Your task to perform on an android device: turn on data saver in the chrome app Image 0: 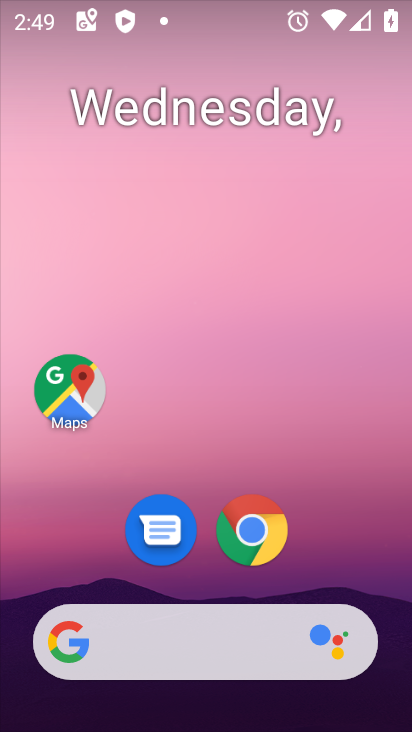
Step 0: drag from (267, 630) to (211, 116)
Your task to perform on an android device: turn on data saver in the chrome app Image 1: 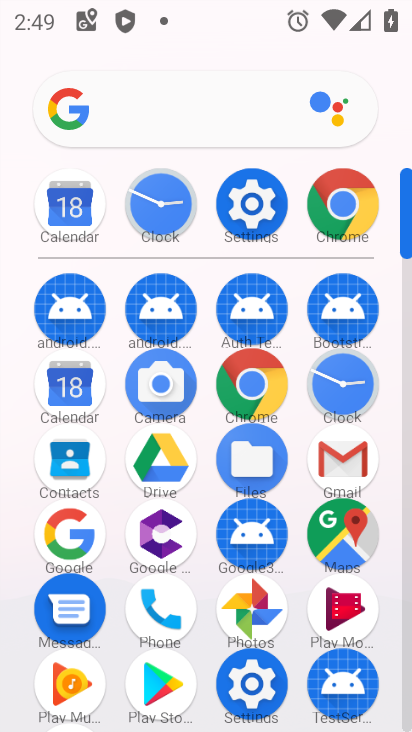
Step 1: click (344, 215)
Your task to perform on an android device: turn on data saver in the chrome app Image 2: 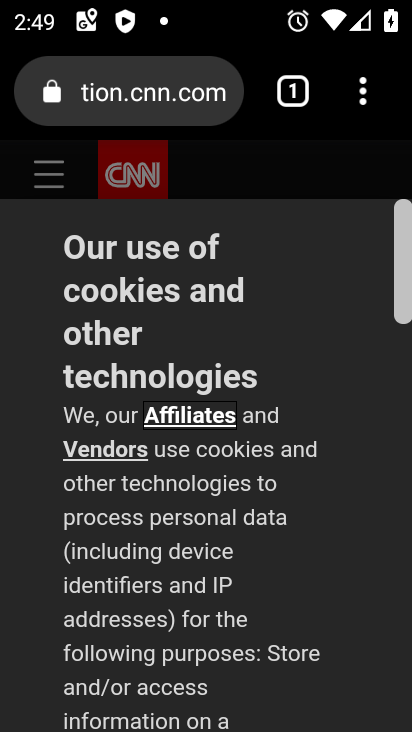
Step 2: drag from (356, 90) to (163, 558)
Your task to perform on an android device: turn on data saver in the chrome app Image 3: 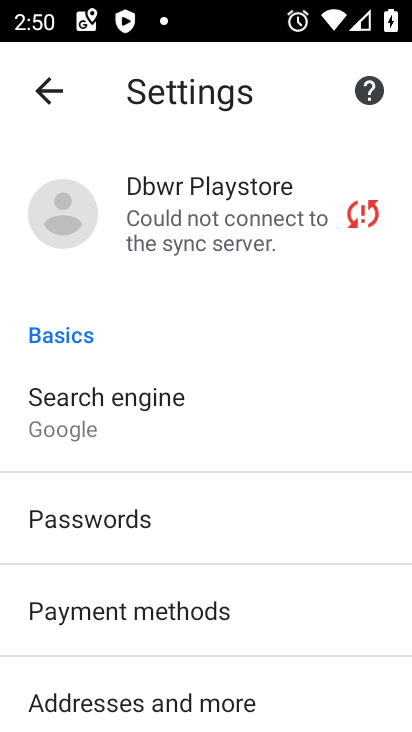
Step 3: drag from (103, 594) to (43, 0)
Your task to perform on an android device: turn on data saver in the chrome app Image 4: 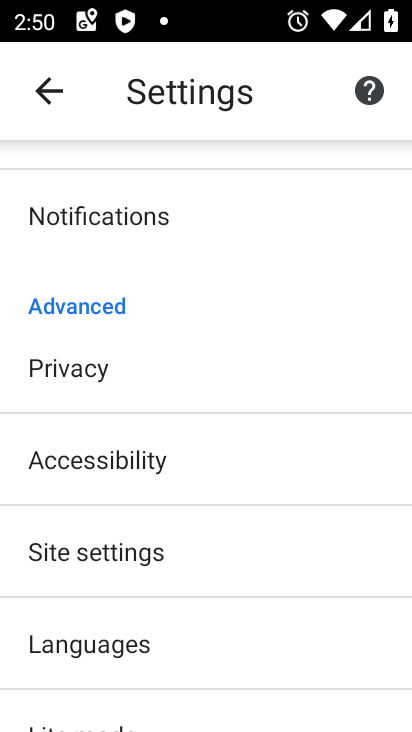
Step 4: drag from (161, 564) to (122, 234)
Your task to perform on an android device: turn on data saver in the chrome app Image 5: 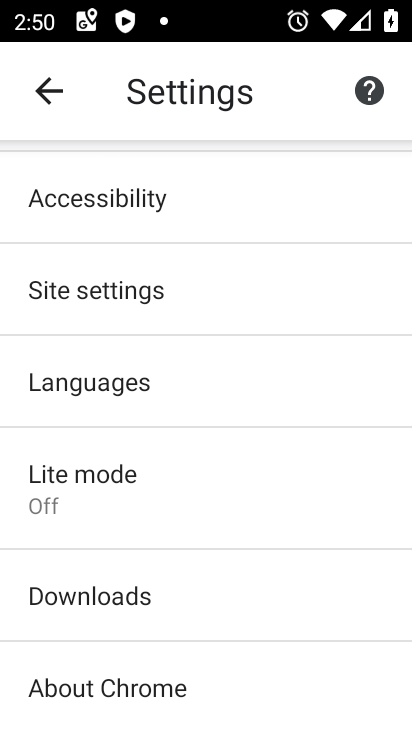
Step 5: click (97, 550)
Your task to perform on an android device: turn on data saver in the chrome app Image 6: 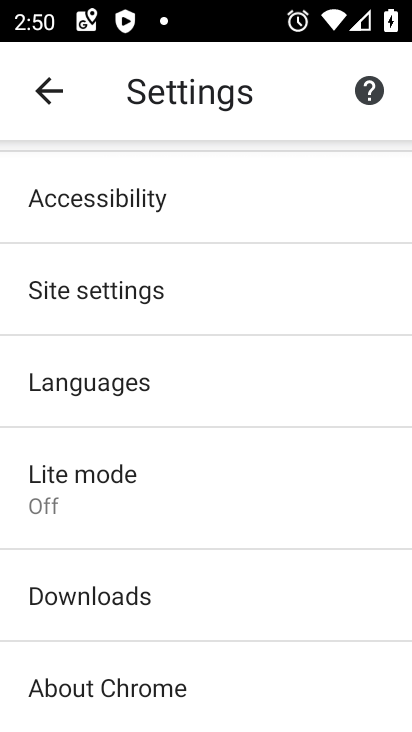
Step 6: click (115, 475)
Your task to perform on an android device: turn on data saver in the chrome app Image 7: 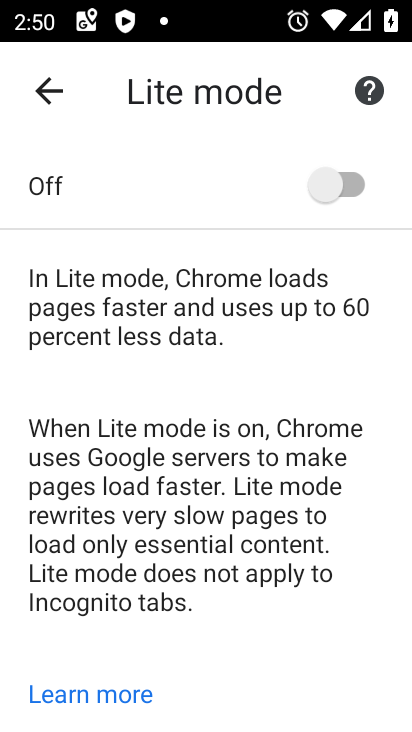
Step 7: click (331, 185)
Your task to perform on an android device: turn on data saver in the chrome app Image 8: 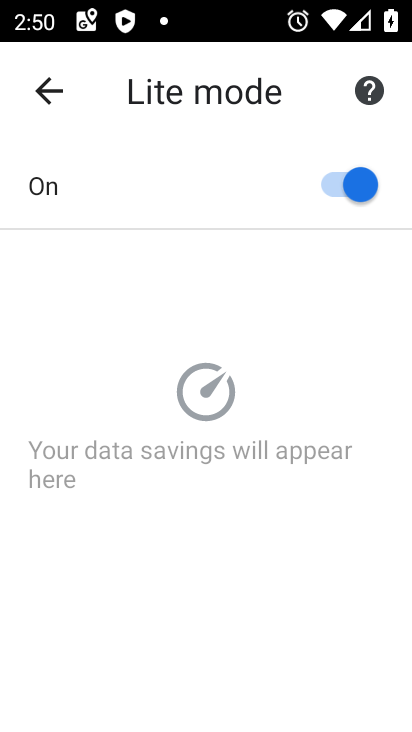
Step 8: task complete